Your task to perform on an android device: Open Google Image 0: 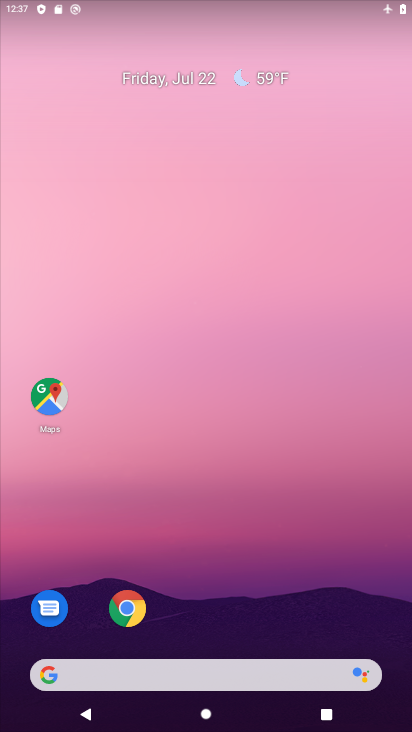
Step 0: click (49, 671)
Your task to perform on an android device: Open Google Image 1: 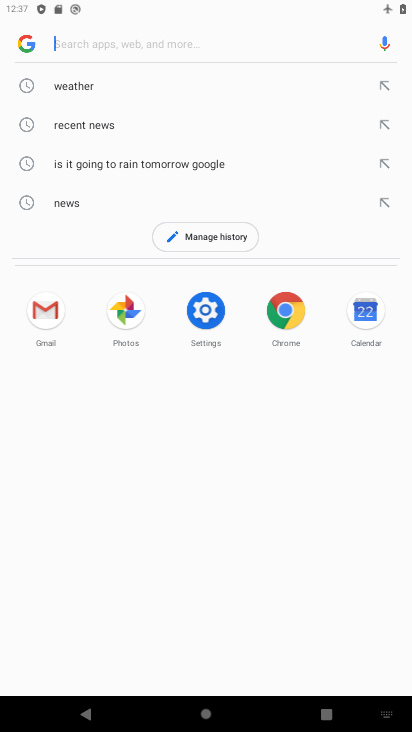
Step 1: click (23, 46)
Your task to perform on an android device: Open Google Image 2: 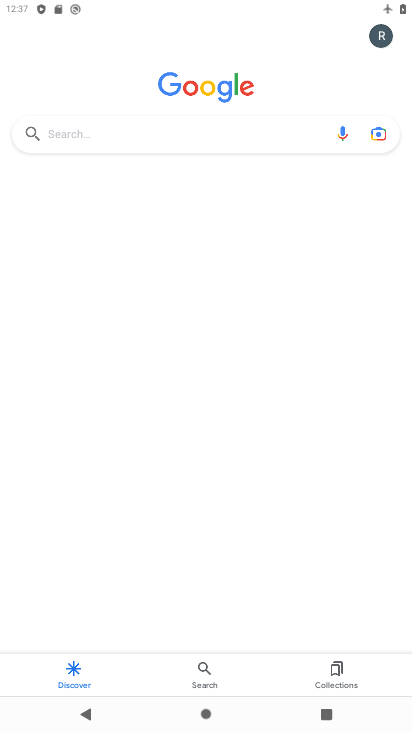
Step 2: task complete